Your task to perform on an android device: Go to Maps Image 0: 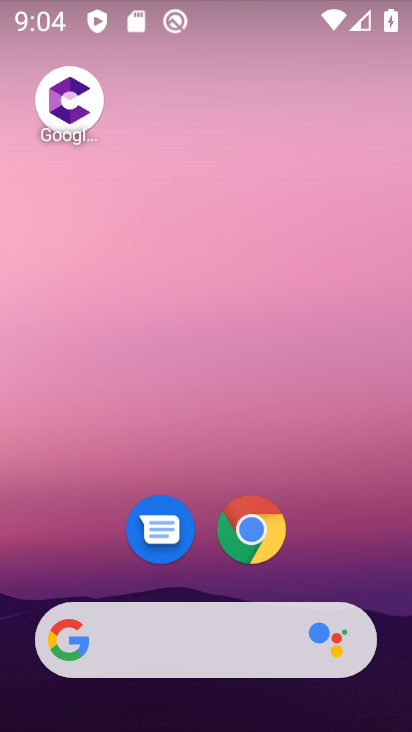
Step 0: drag from (21, 355) to (336, 373)
Your task to perform on an android device: Go to Maps Image 1: 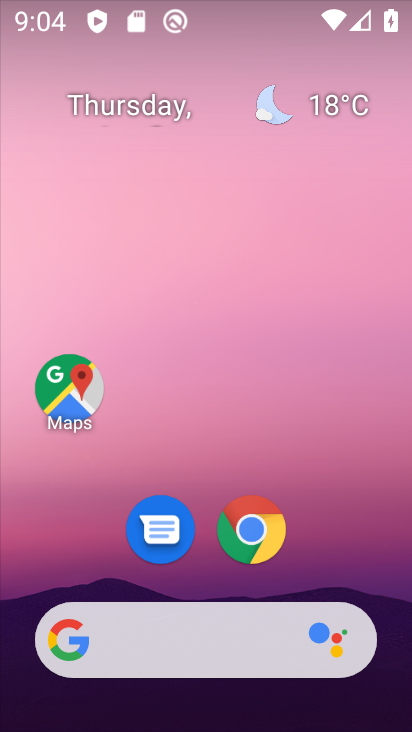
Step 1: click (66, 391)
Your task to perform on an android device: Go to Maps Image 2: 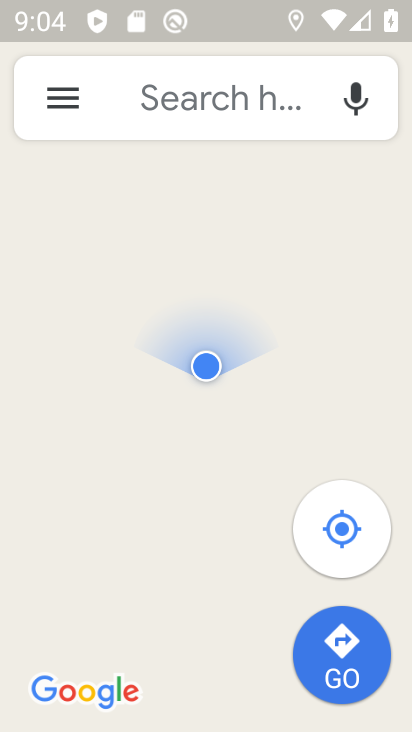
Step 2: task complete